Your task to perform on an android device: Show me the alarms in the clock app Image 0: 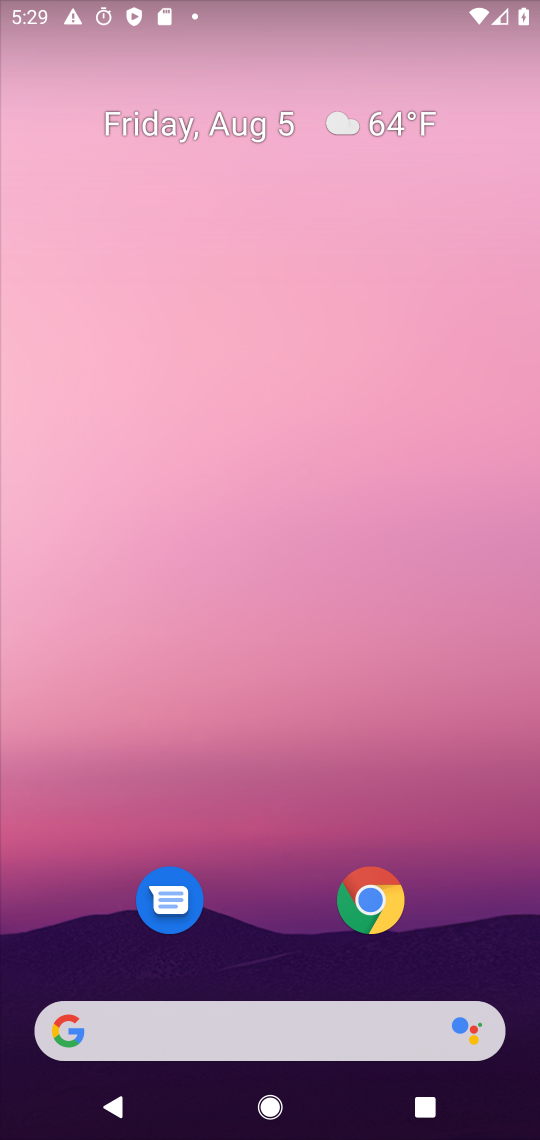
Step 0: drag from (283, 1019) to (222, 29)
Your task to perform on an android device: Show me the alarms in the clock app Image 1: 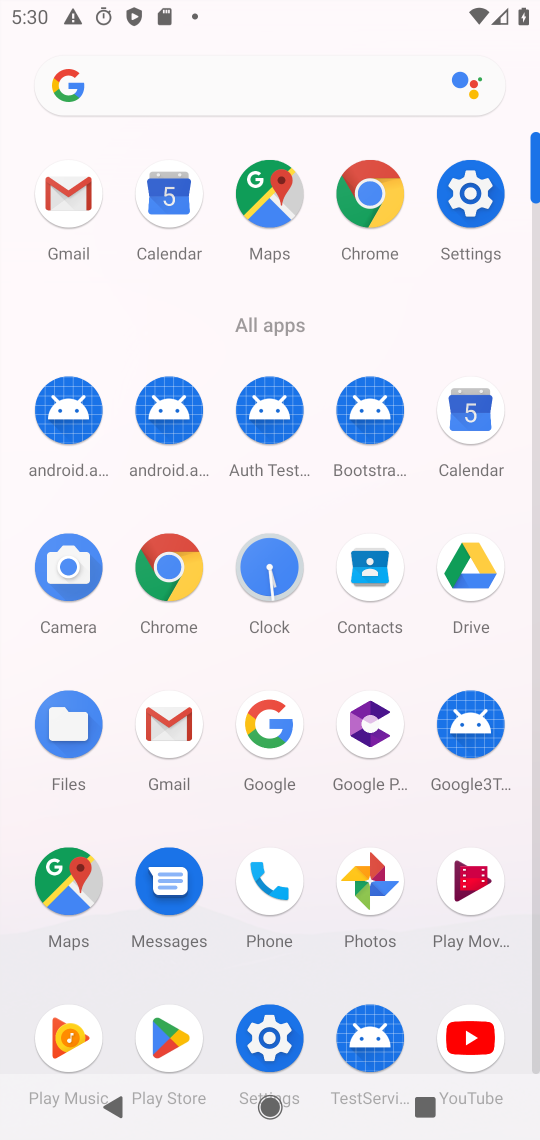
Step 1: click (285, 567)
Your task to perform on an android device: Show me the alarms in the clock app Image 2: 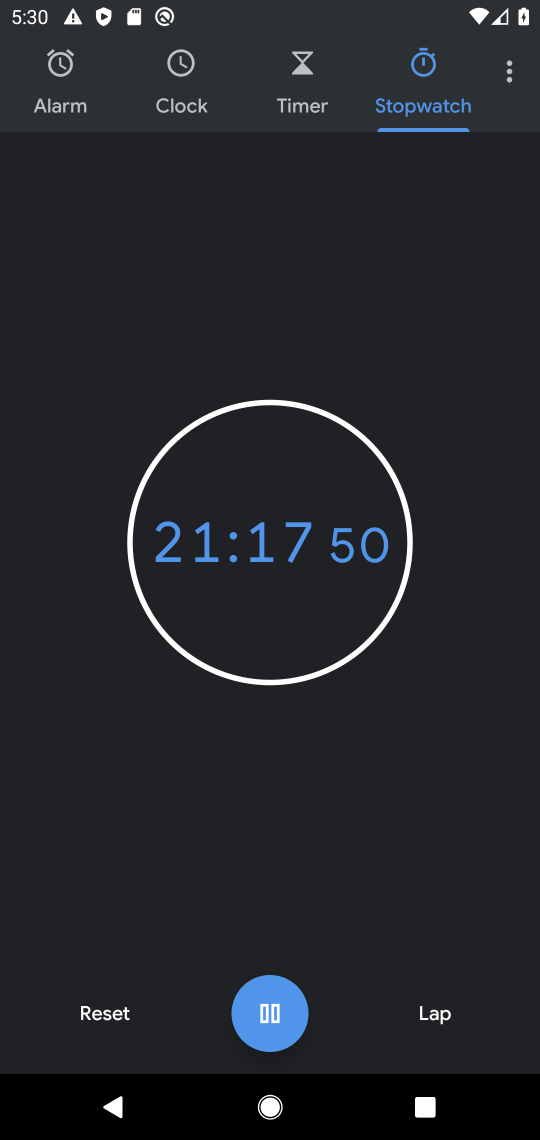
Step 2: click (59, 71)
Your task to perform on an android device: Show me the alarms in the clock app Image 3: 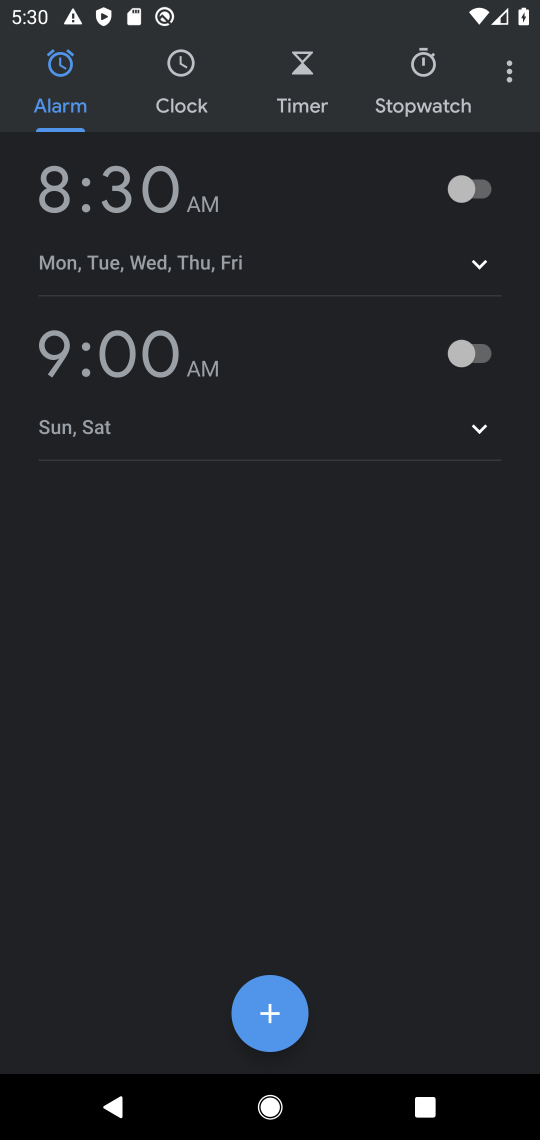
Step 3: task complete